Your task to perform on an android device: turn smart compose on in the gmail app Image 0: 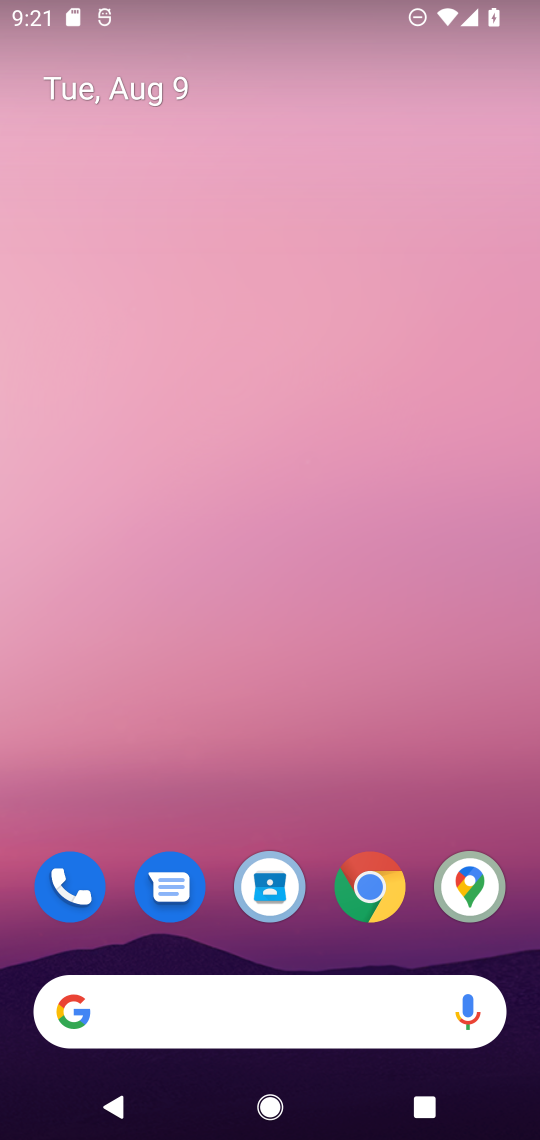
Step 0: drag from (272, 668) to (272, 31)
Your task to perform on an android device: turn smart compose on in the gmail app Image 1: 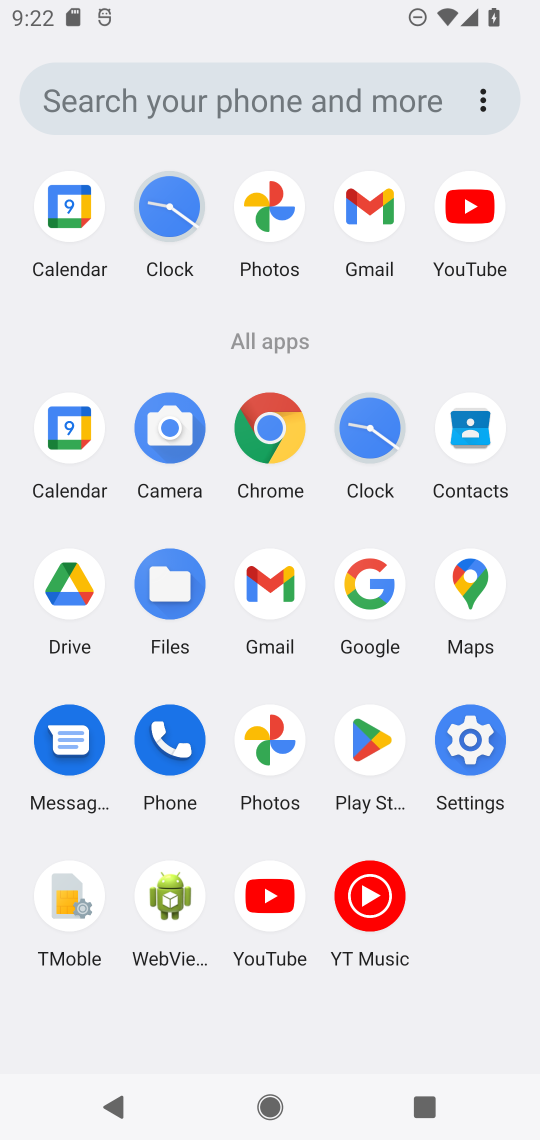
Step 1: click (260, 620)
Your task to perform on an android device: turn smart compose on in the gmail app Image 2: 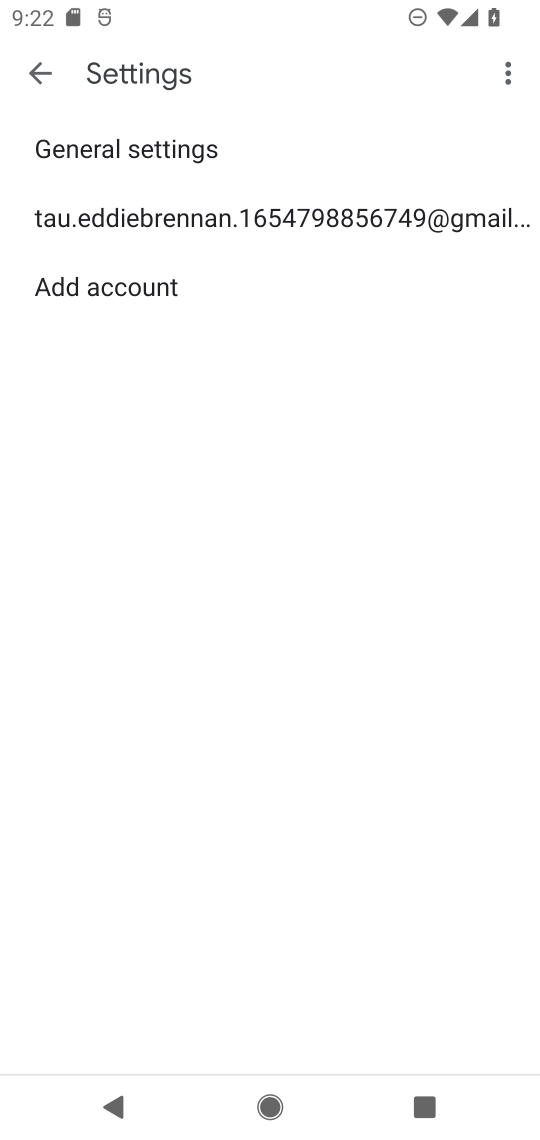
Step 2: click (113, 214)
Your task to perform on an android device: turn smart compose on in the gmail app Image 3: 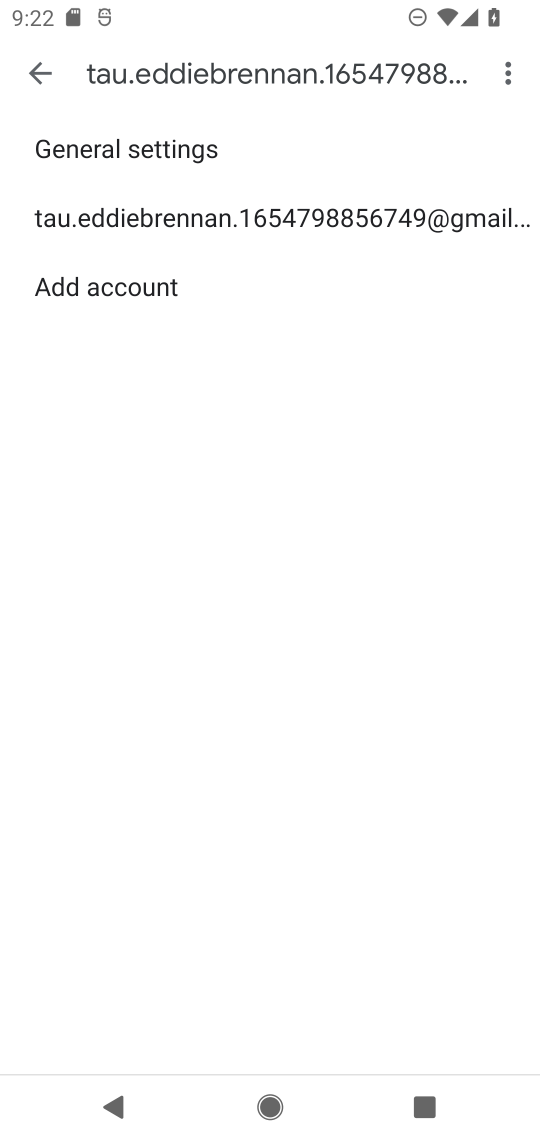
Step 3: click (128, 220)
Your task to perform on an android device: turn smart compose on in the gmail app Image 4: 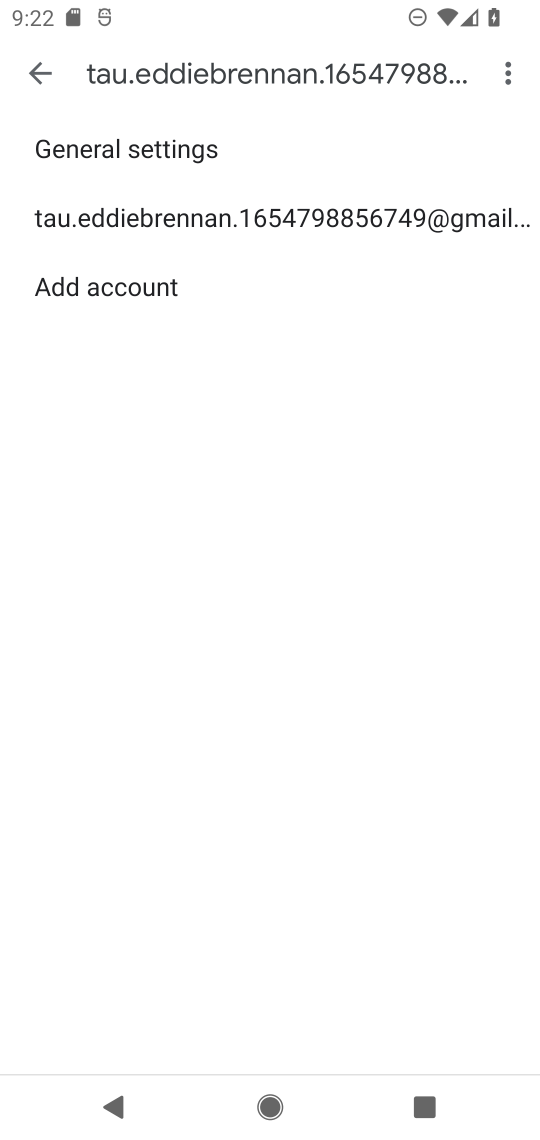
Step 4: click (340, 216)
Your task to perform on an android device: turn smart compose on in the gmail app Image 5: 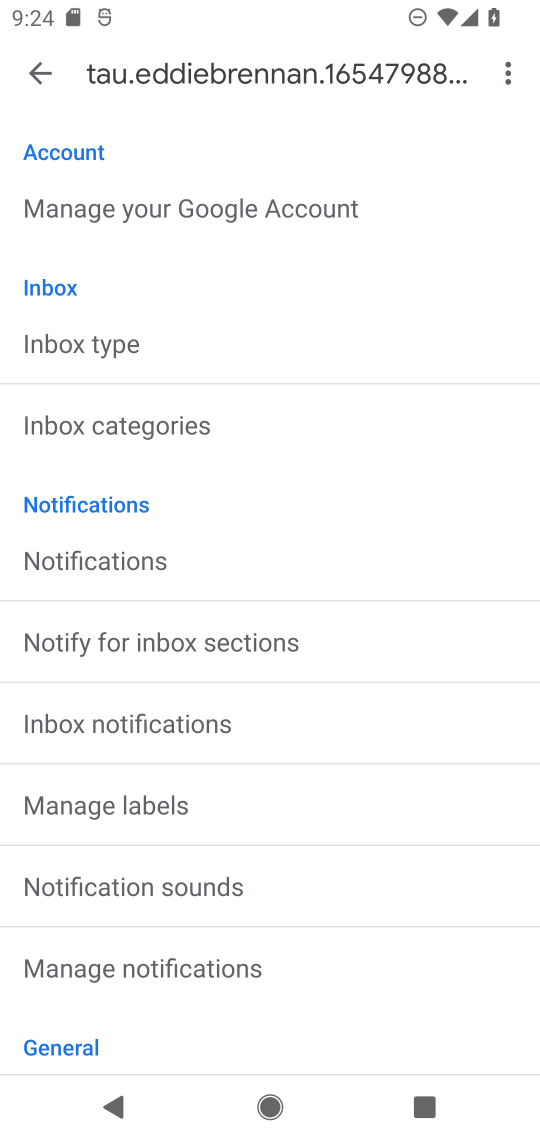
Step 5: drag from (242, 805) to (242, 307)
Your task to perform on an android device: turn smart compose on in the gmail app Image 6: 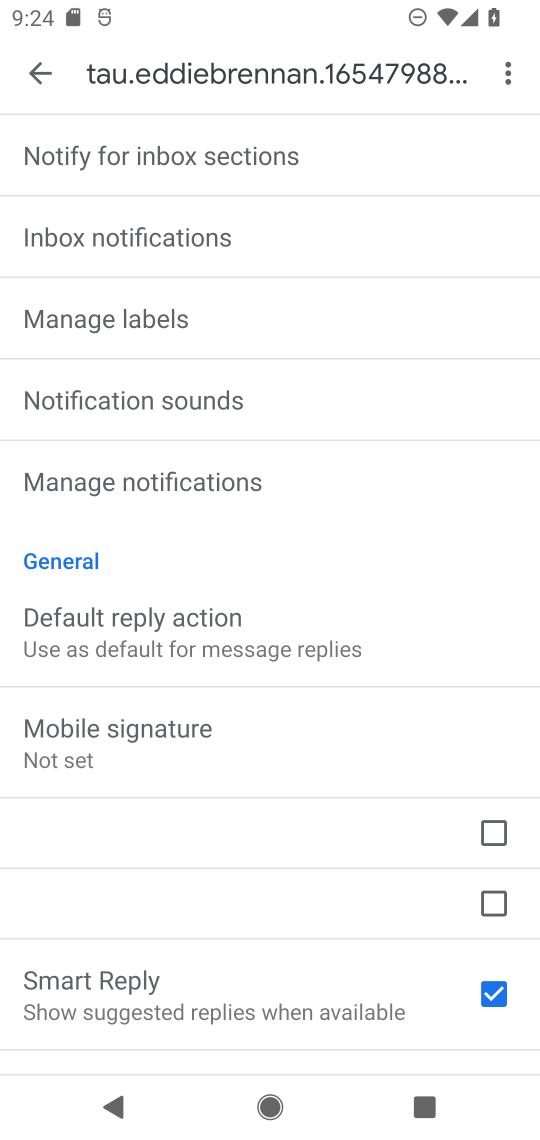
Step 6: drag from (169, 870) to (199, 292)
Your task to perform on an android device: turn smart compose on in the gmail app Image 7: 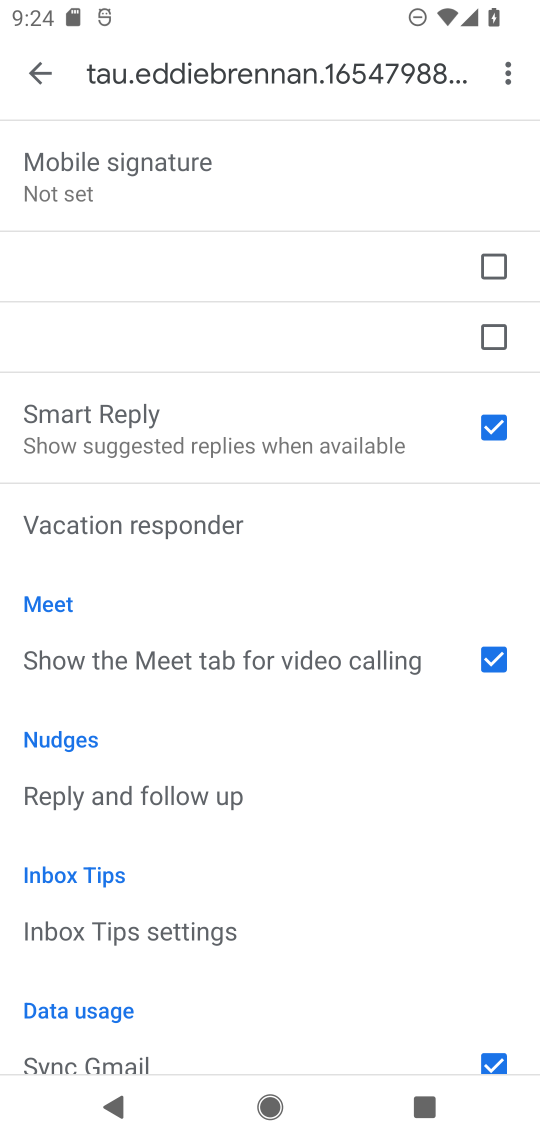
Step 7: drag from (239, 852) to (271, 724)
Your task to perform on an android device: turn smart compose on in the gmail app Image 8: 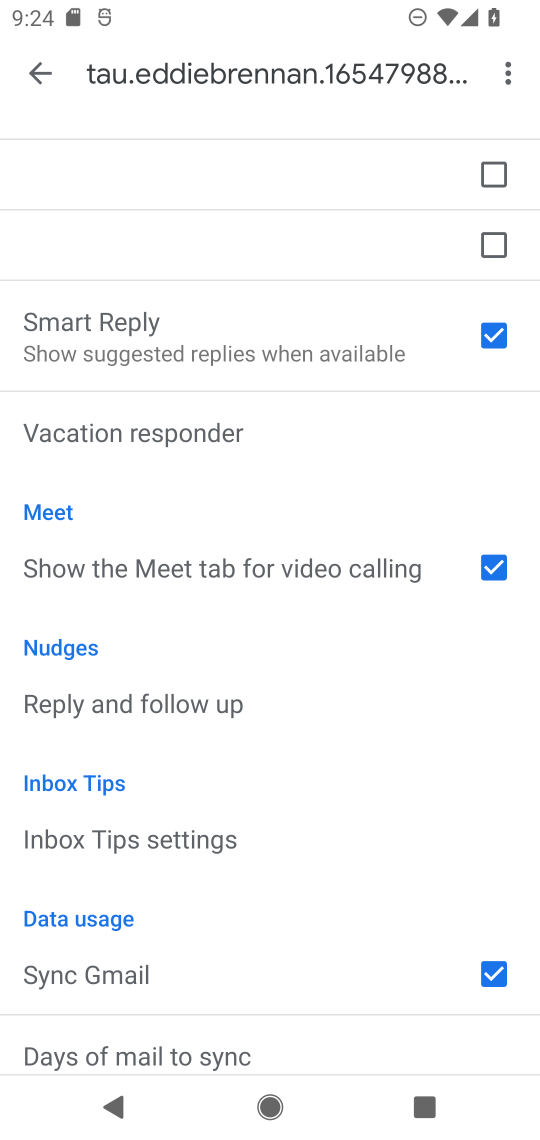
Step 8: drag from (215, 455) to (223, 777)
Your task to perform on an android device: turn smart compose on in the gmail app Image 9: 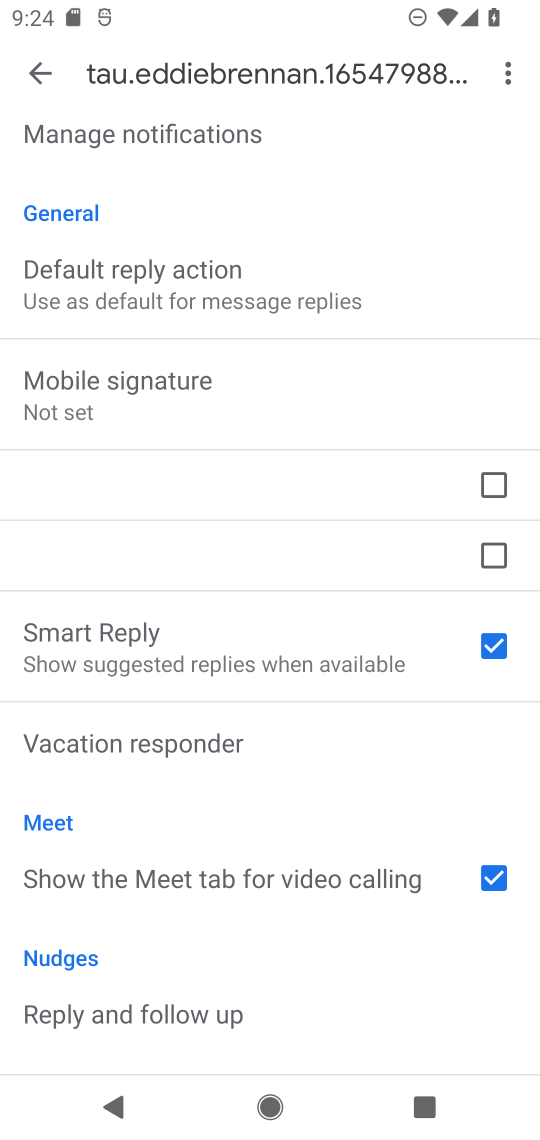
Step 9: click (494, 567)
Your task to perform on an android device: turn smart compose on in the gmail app Image 10: 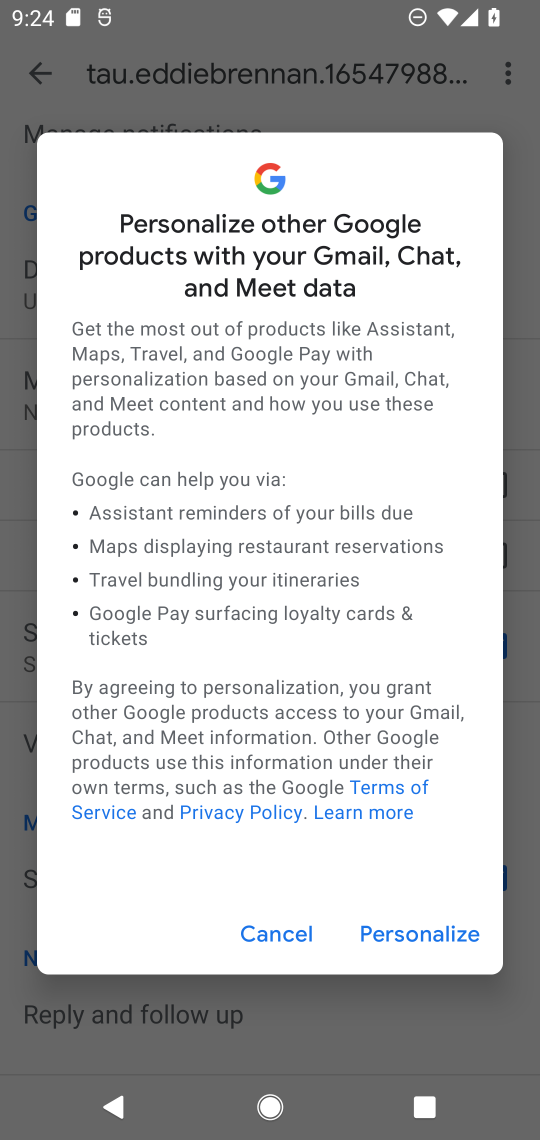
Step 10: click (260, 936)
Your task to perform on an android device: turn smart compose on in the gmail app Image 11: 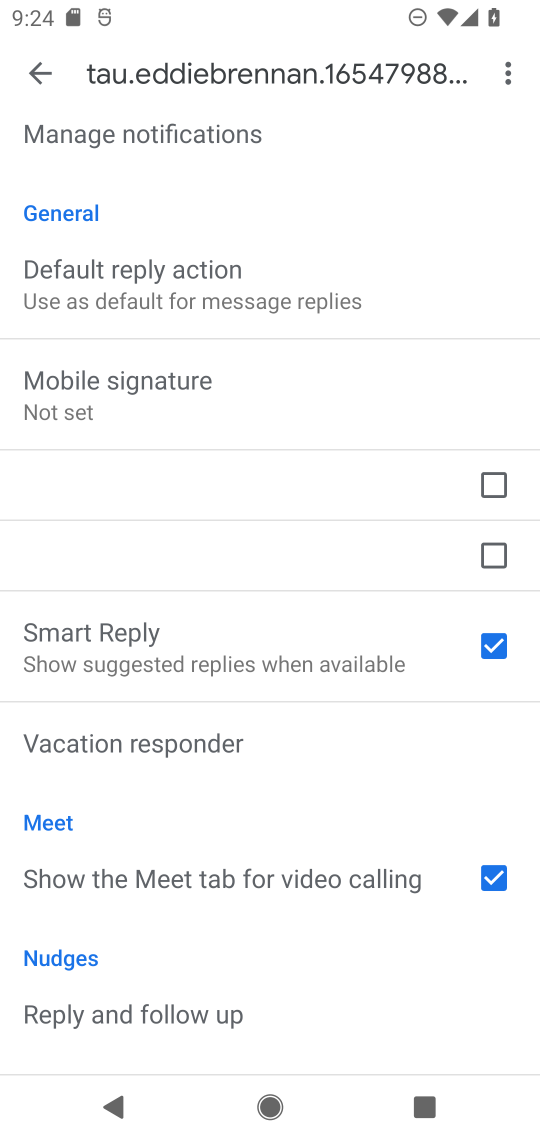
Step 11: task complete